Your task to perform on an android device: add a label to a message in the gmail app Image 0: 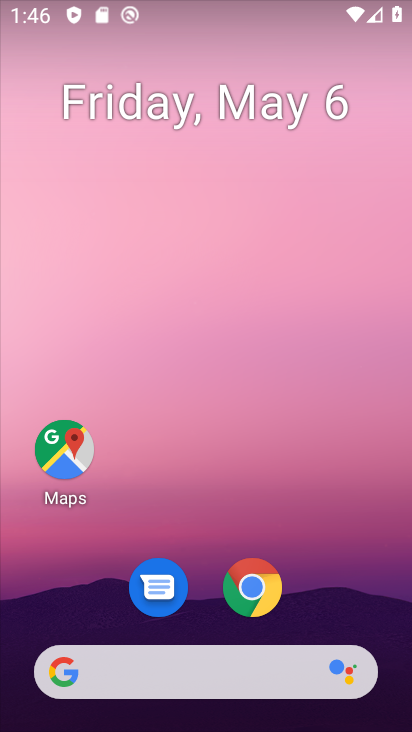
Step 0: drag from (330, 624) to (333, 57)
Your task to perform on an android device: add a label to a message in the gmail app Image 1: 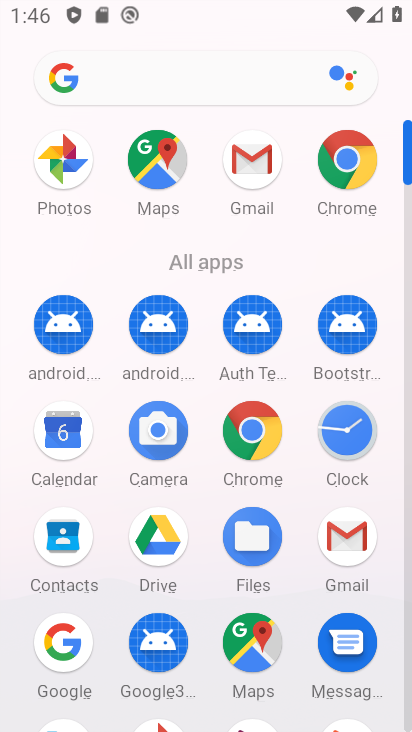
Step 1: click (259, 164)
Your task to perform on an android device: add a label to a message in the gmail app Image 2: 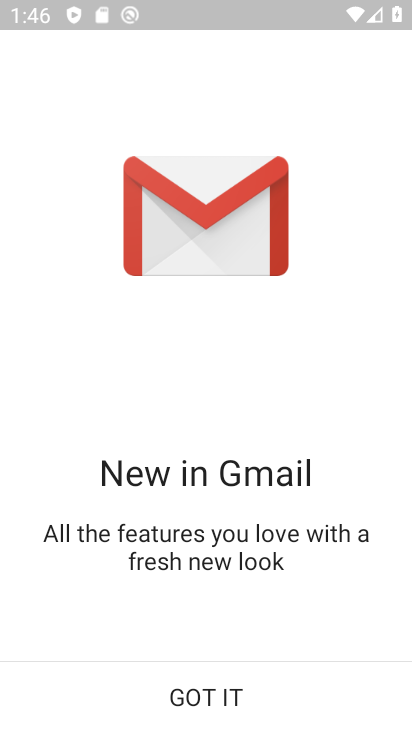
Step 2: click (224, 708)
Your task to perform on an android device: add a label to a message in the gmail app Image 3: 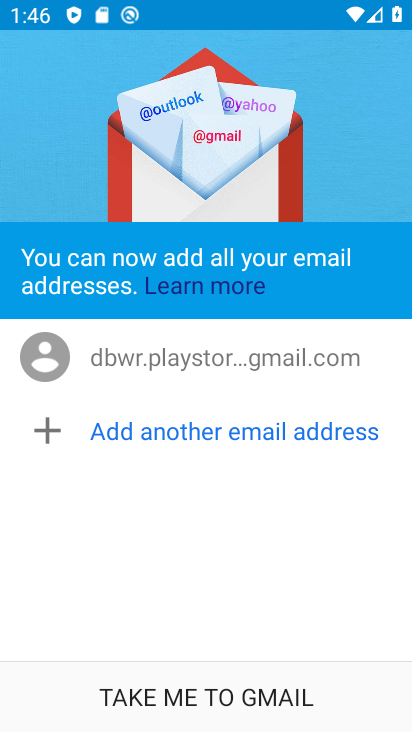
Step 3: click (224, 708)
Your task to perform on an android device: add a label to a message in the gmail app Image 4: 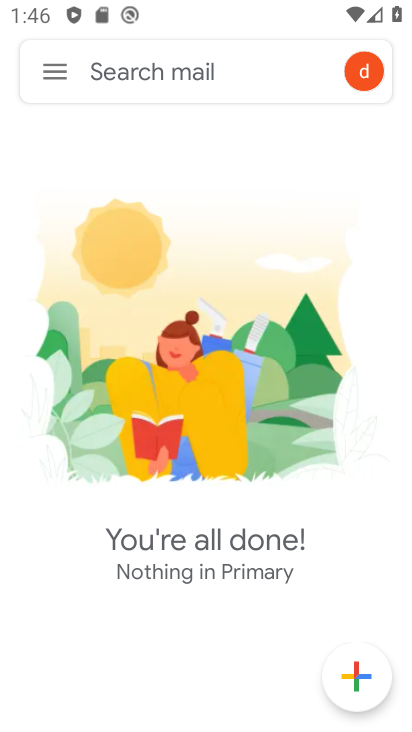
Step 4: click (58, 81)
Your task to perform on an android device: add a label to a message in the gmail app Image 5: 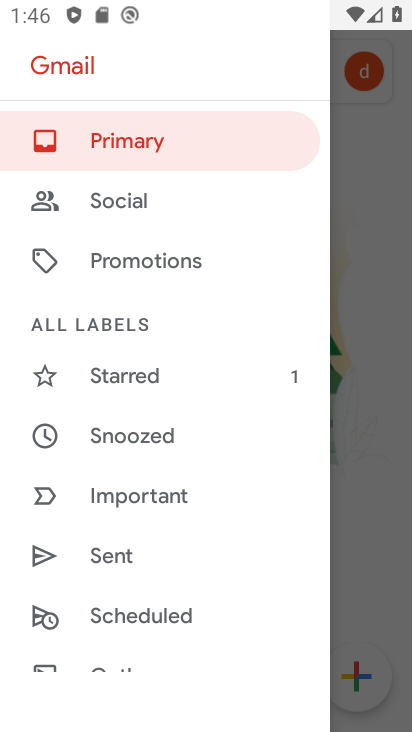
Step 5: click (143, 375)
Your task to perform on an android device: add a label to a message in the gmail app Image 6: 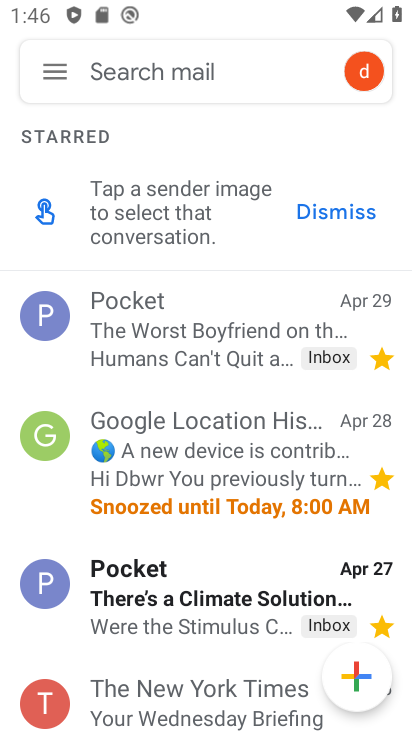
Step 6: drag from (157, 359) to (170, 410)
Your task to perform on an android device: add a label to a message in the gmail app Image 7: 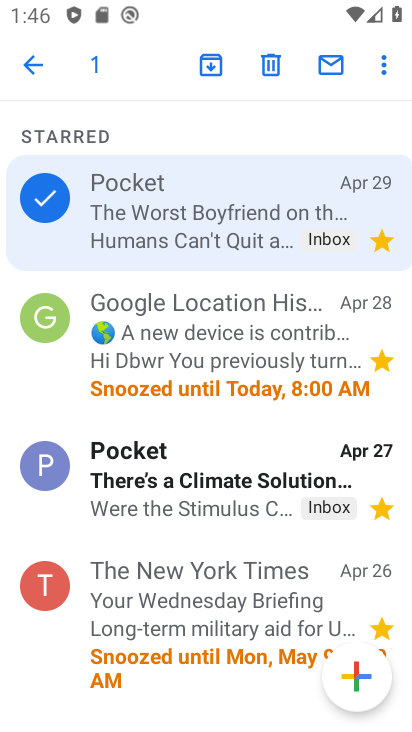
Step 7: click (169, 394)
Your task to perform on an android device: add a label to a message in the gmail app Image 8: 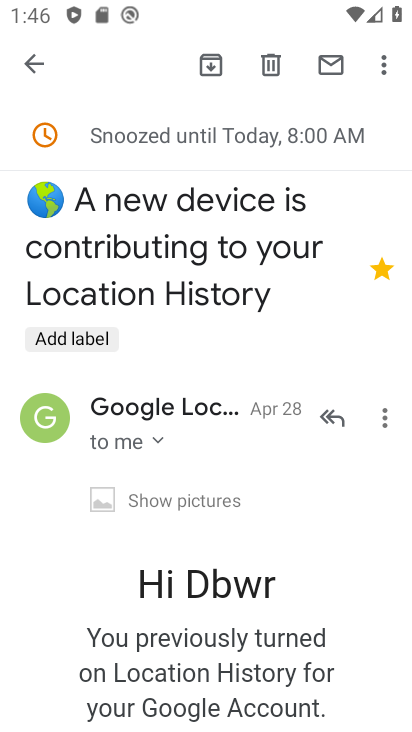
Step 8: click (89, 335)
Your task to perform on an android device: add a label to a message in the gmail app Image 9: 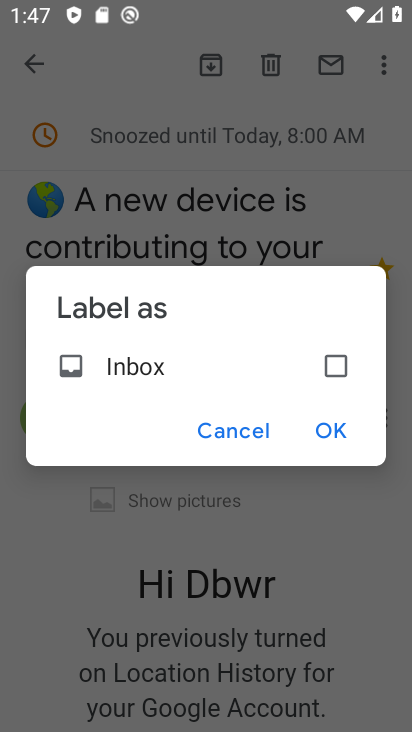
Step 9: click (223, 369)
Your task to perform on an android device: add a label to a message in the gmail app Image 10: 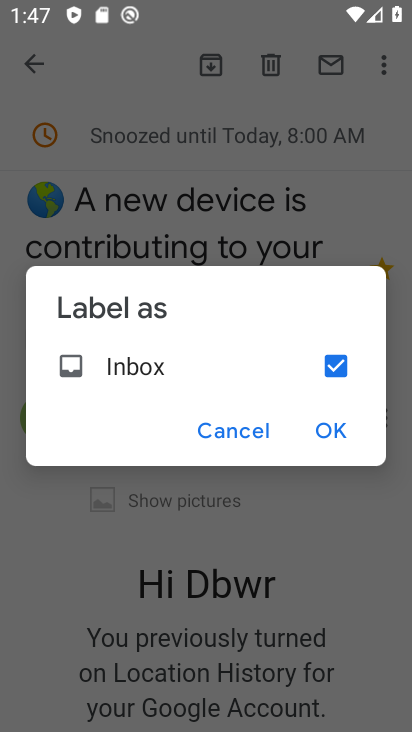
Step 10: click (324, 421)
Your task to perform on an android device: add a label to a message in the gmail app Image 11: 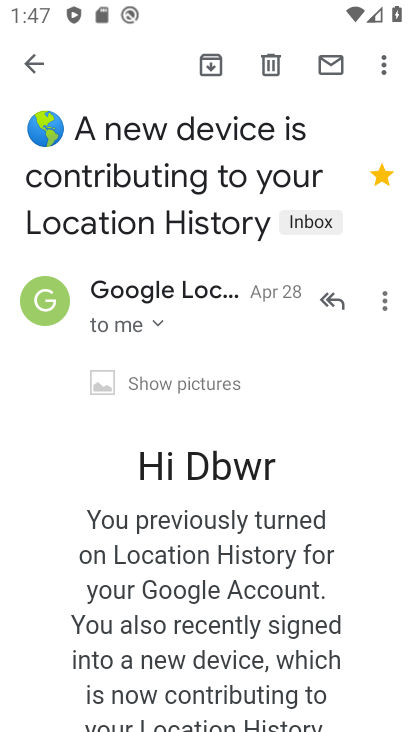
Step 11: task complete